Your task to perform on an android device: open chrome and create a bookmark for the current page Image 0: 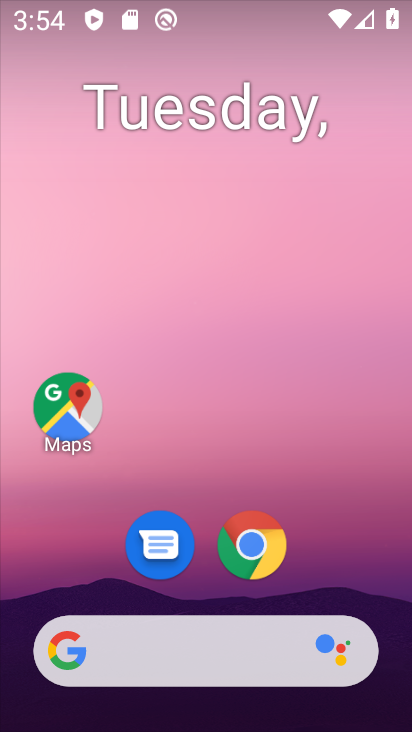
Step 0: click (276, 552)
Your task to perform on an android device: open chrome and create a bookmark for the current page Image 1: 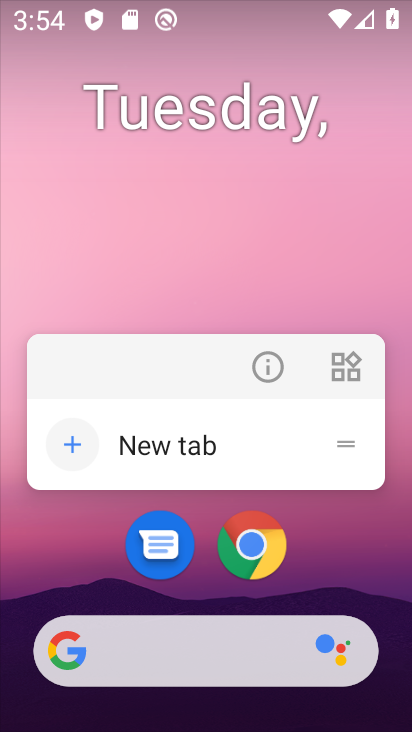
Step 1: click (272, 544)
Your task to perform on an android device: open chrome and create a bookmark for the current page Image 2: 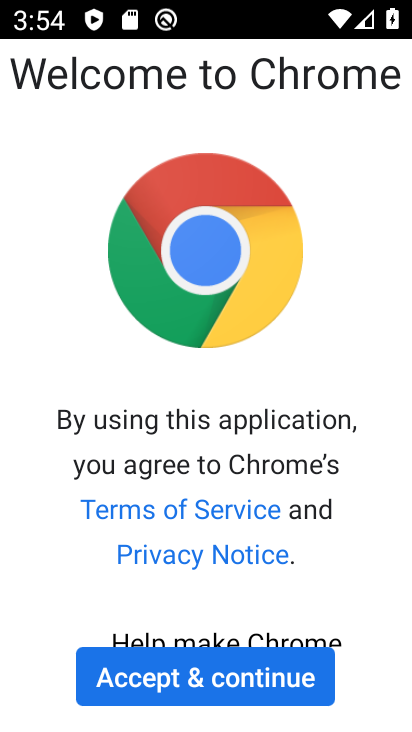
Step 2: click (219, 683)
Your task to perform on an android device: open chrome and create a bookmark for the current page Image 3: 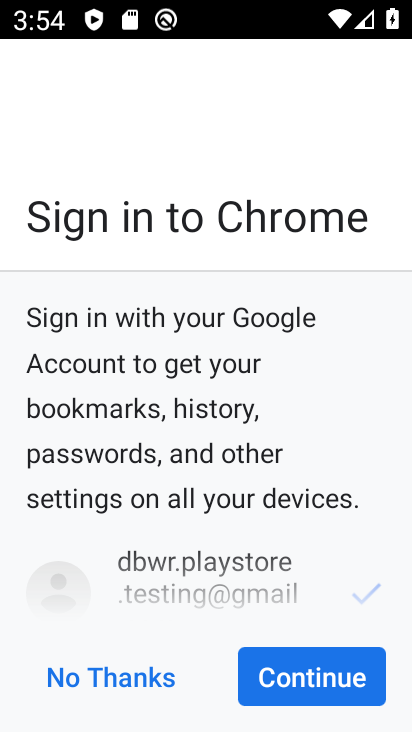
Step 3: click (317, 664)
Your task to perform on an android device: open chrome and create a bookmark for the current page Image 4: 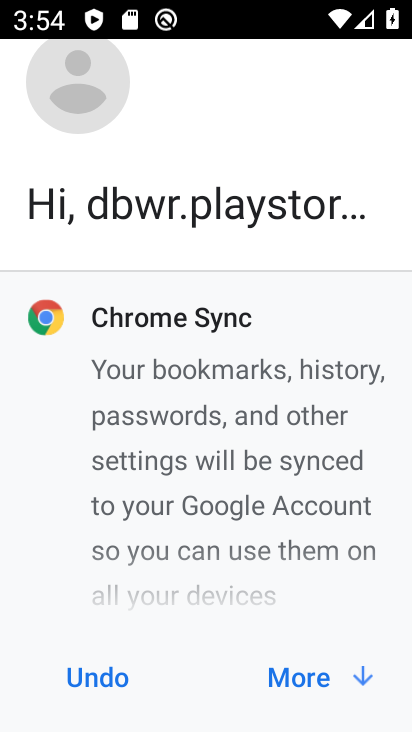
Step 4: click (320, 678)
Your task to perform on an android device: open chrome and create a bookmark for the current page Image 5: 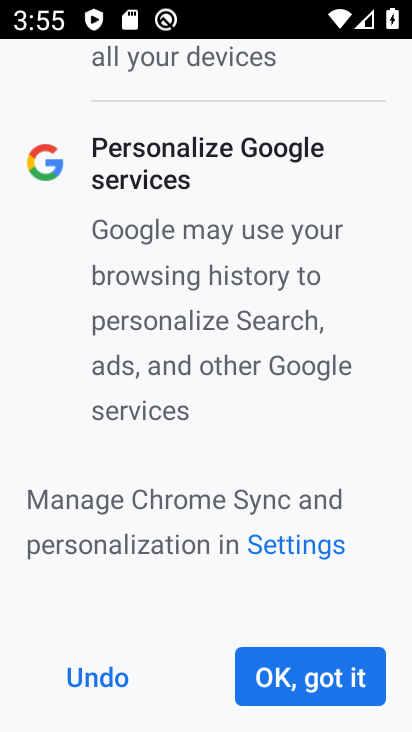
Step 5: click (320, 678)
Your task to perform on an android device: open chrome and create a bookmark for the current page Image 6: 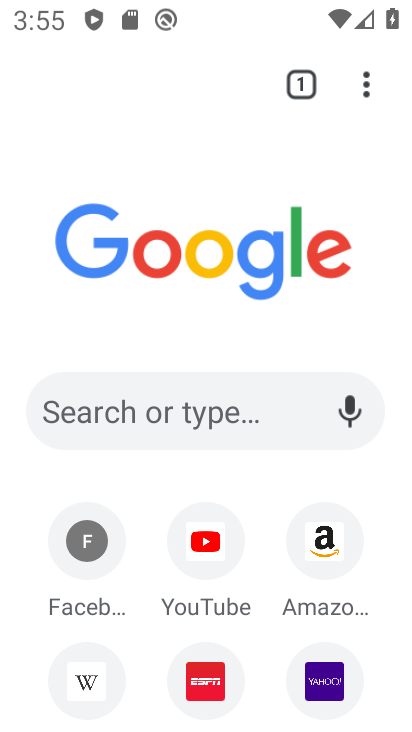
Step 6: click (369, 79)
Your task to perform on an android device: open chrome and create a bookmark for the current page Image 7: 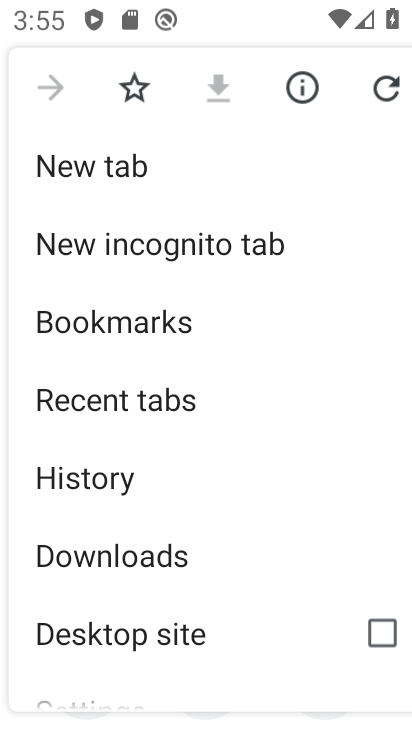
Step 7: click (129, 90)
Your task to perform on an android device: open chrome and create a bookmark for the current page Image 8: 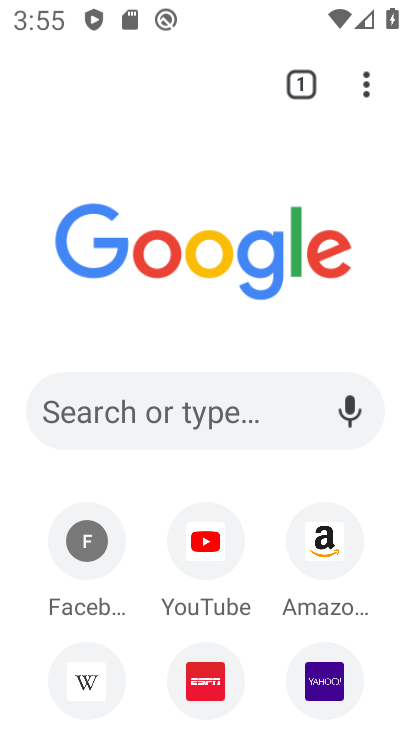
Step 8: task complete